Your task to perform on an android device: add a contact in the contacts app Image 0: 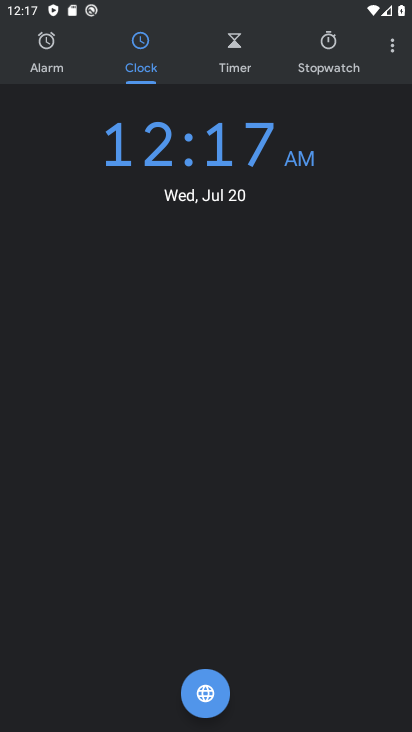
Step 0: press home button
Your task to perform on an android device: add a contact in the contacts app Image 1: 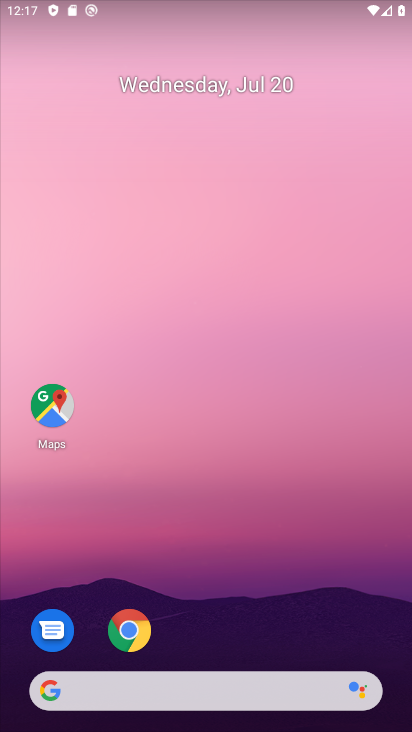
Step 1: drag from (100, 563) to (342, 109)
Your task to perform on an android device: add a contact in the contacts app Image 2: 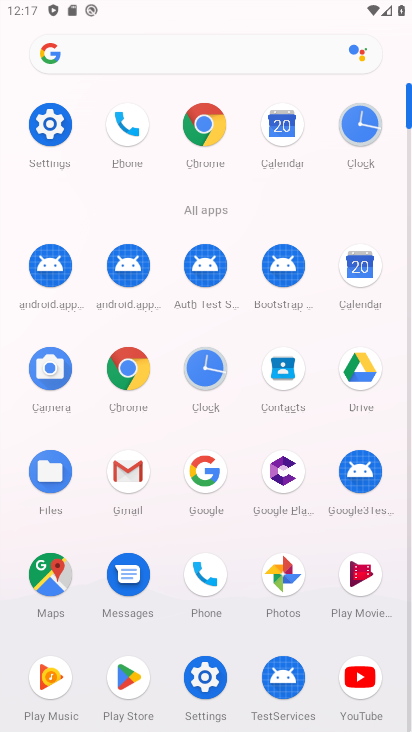
Step 2: click (132, 121)
Your task to perform on an android device: add a contact in the contacts app Image 3: 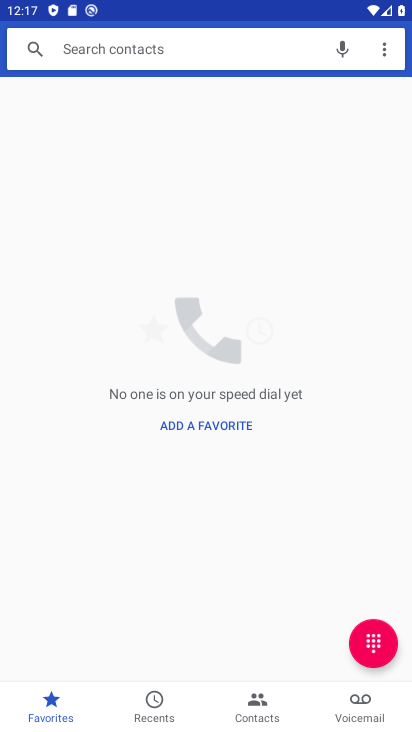
Step 3: click (275, 710)
Your task to perform on an android device: add a contact in the contacts app Image 4: 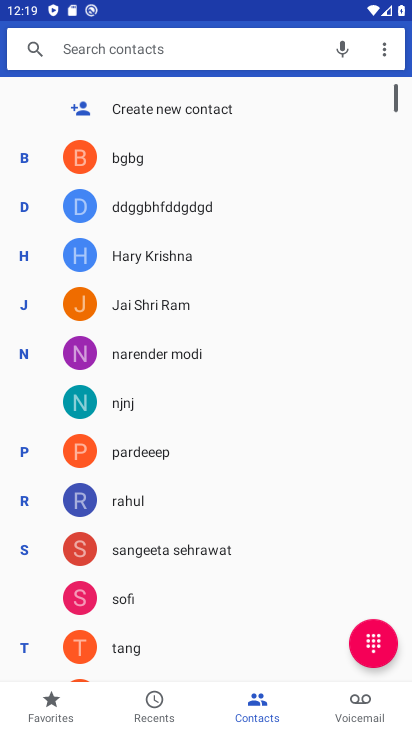
Step 4: task complete